Your task to perform on an android device: Open battery settings Image 0: 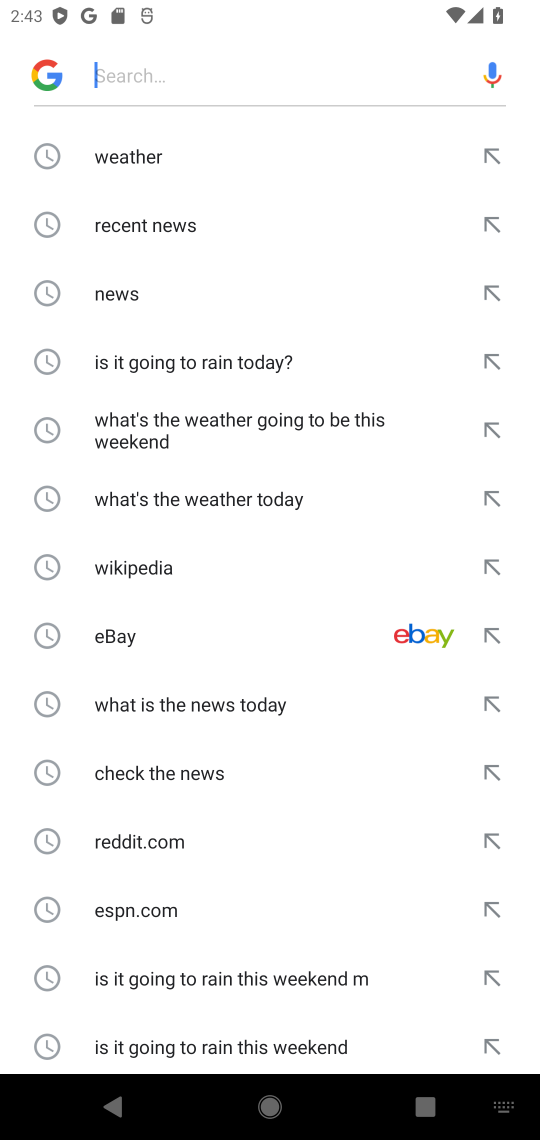
Step 0: press home button
Your task to perform on an android device: Open battery settings Image 1: 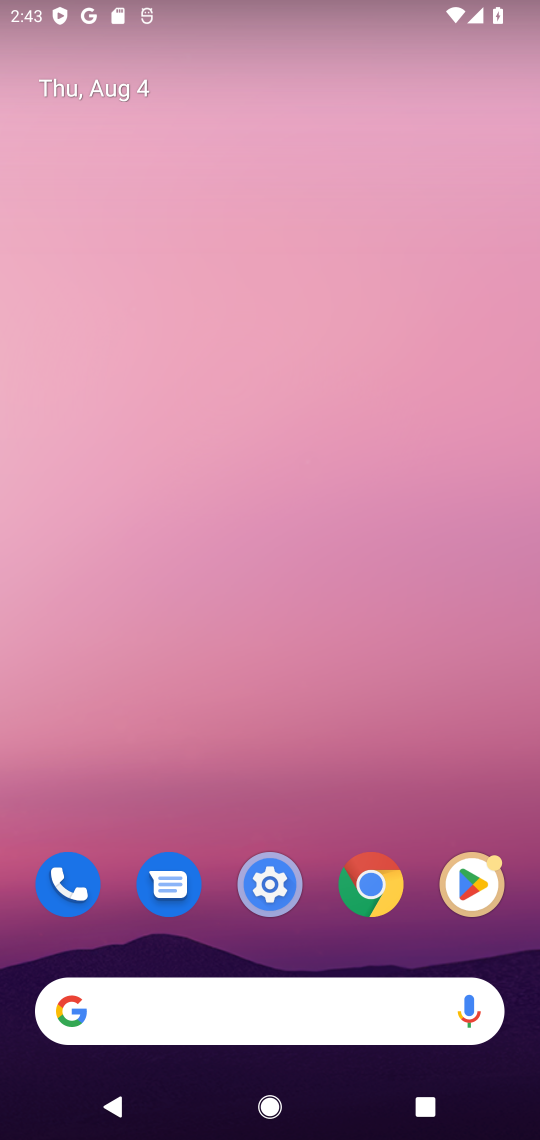
Step 1: drag from (217, 723) to (358, 77)
Your task to perform on an android device: Open battery settings Image 2: 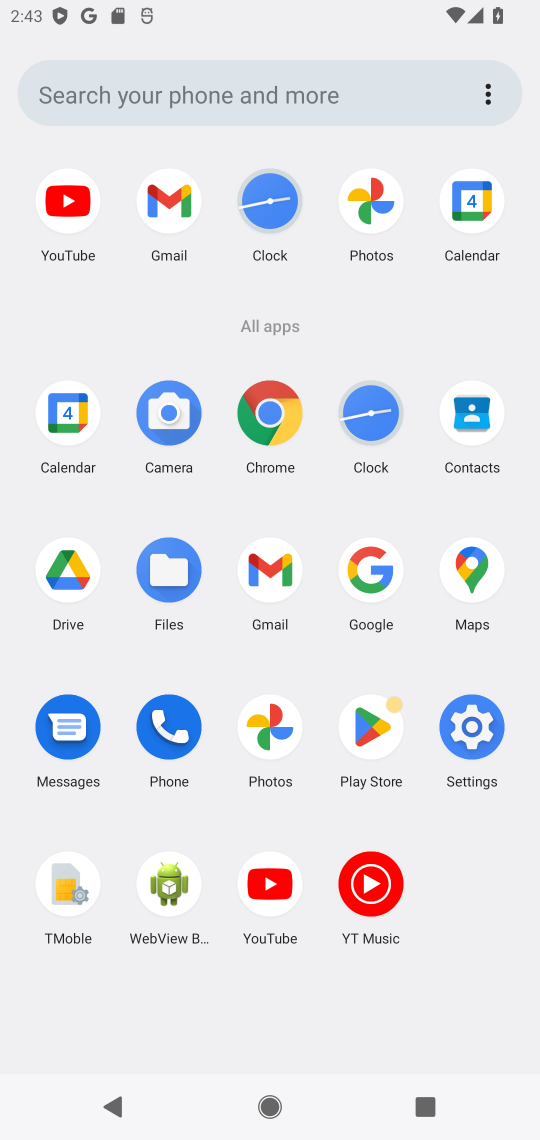
Step 2: click (457, 731)
Your task to perform on an android device: Open battery settings Image 3: 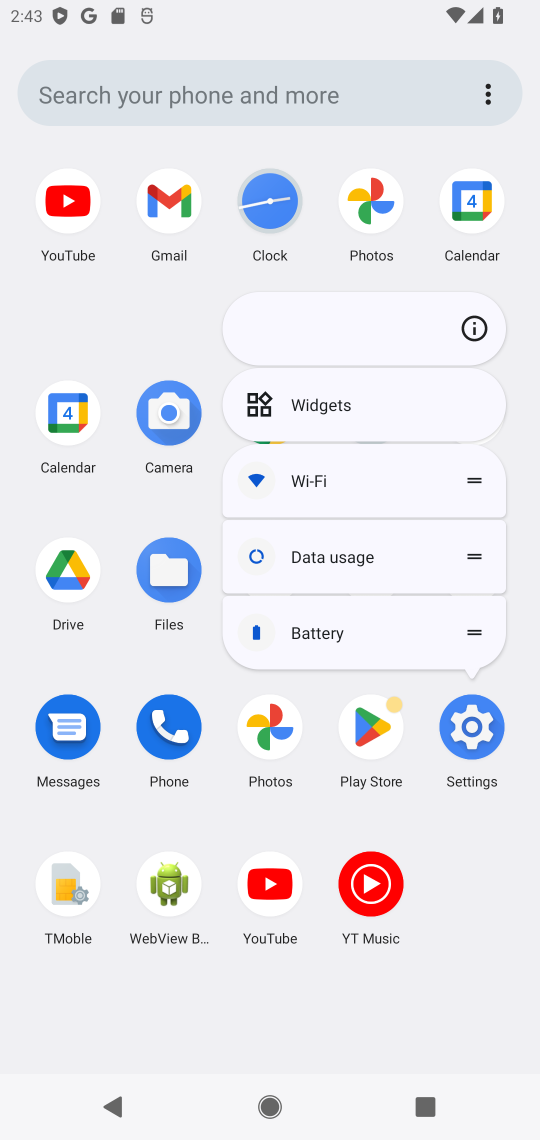
Step 3: click (475, 327)
Your task to perform on an android device: Open battery settings Image 4: 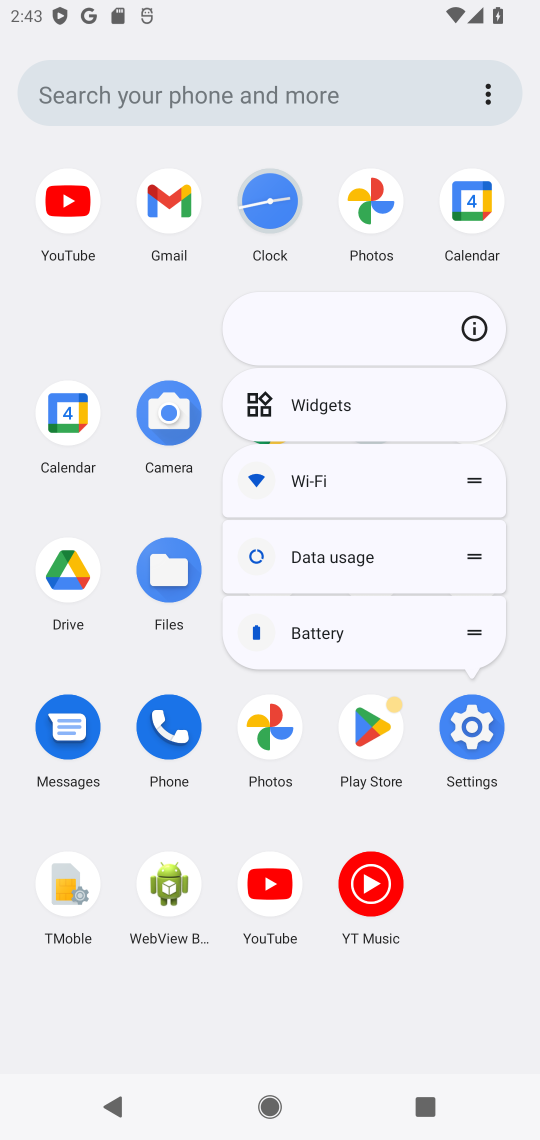
Step 4: click (470, 320)
Your task to perform on an android device: Open battery settings Image 5: 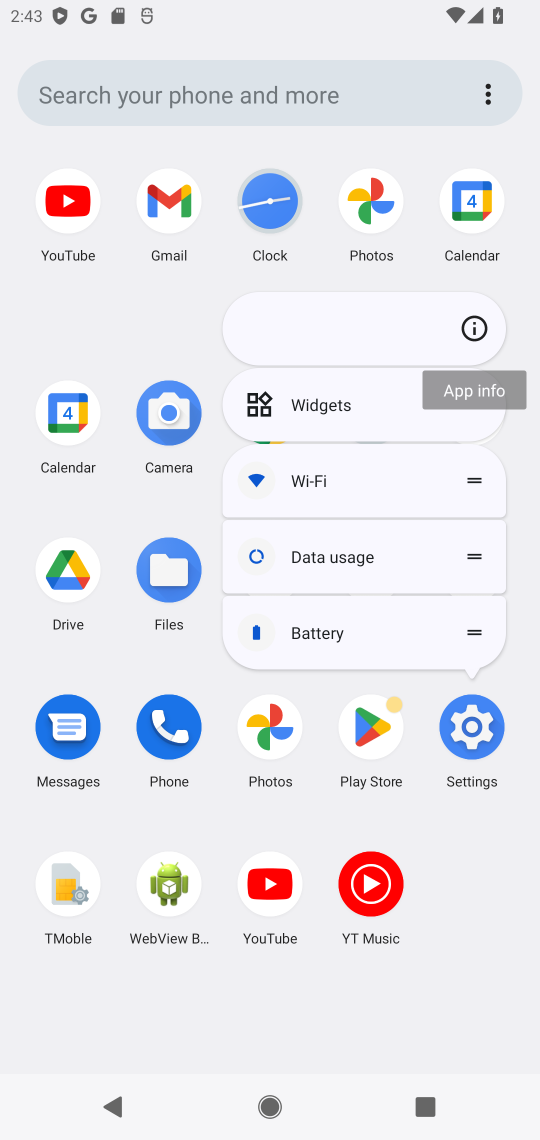
Step 5: click (473, 335)
Your task to perform on an android device: Open battery settings Image 6: 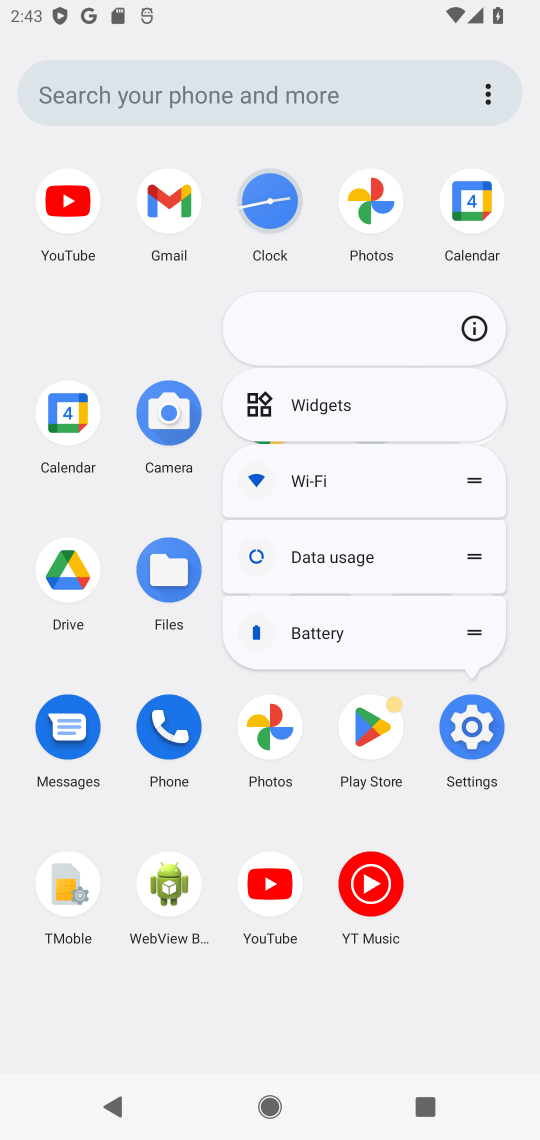
Step 6: click (472, 332)
Your task to perform on an android device: Open battery settings Image 7: 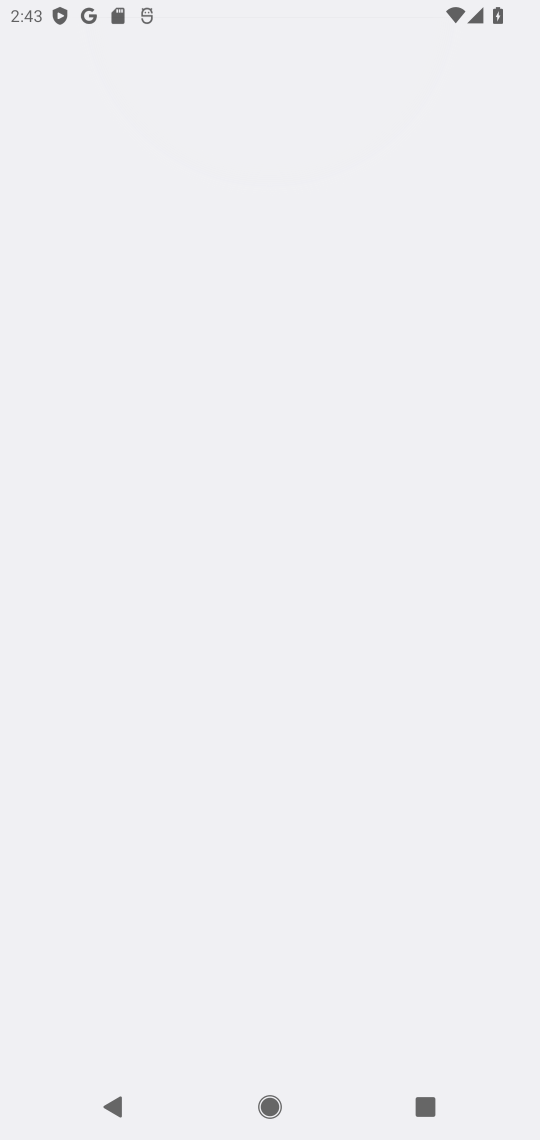
Step 7: click (464, 325)
Your task to perform on an android device: Open battery settings Image 8: 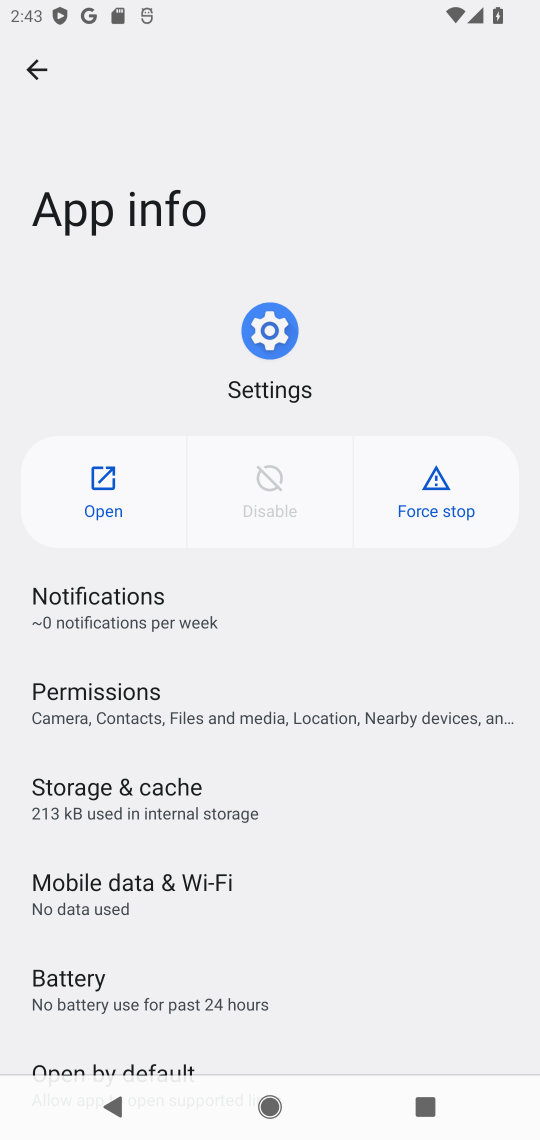
Step 8: click (83, 491)
Your task to perform on an android device: Open battery settings Image 9: 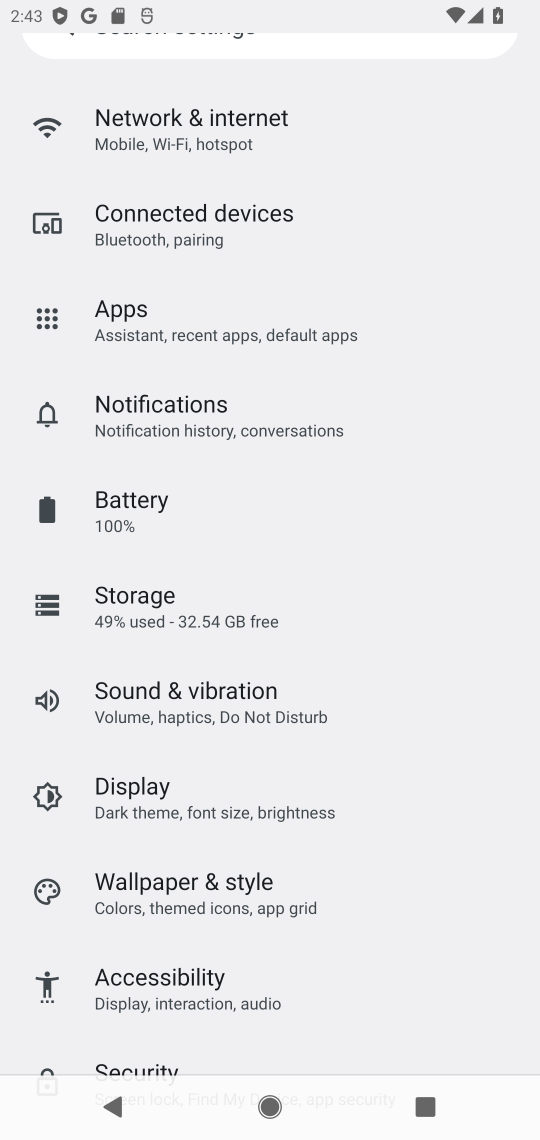
Step 9: click (181, 499)
Your task to perform on an android device: Open battery settings Image 10: 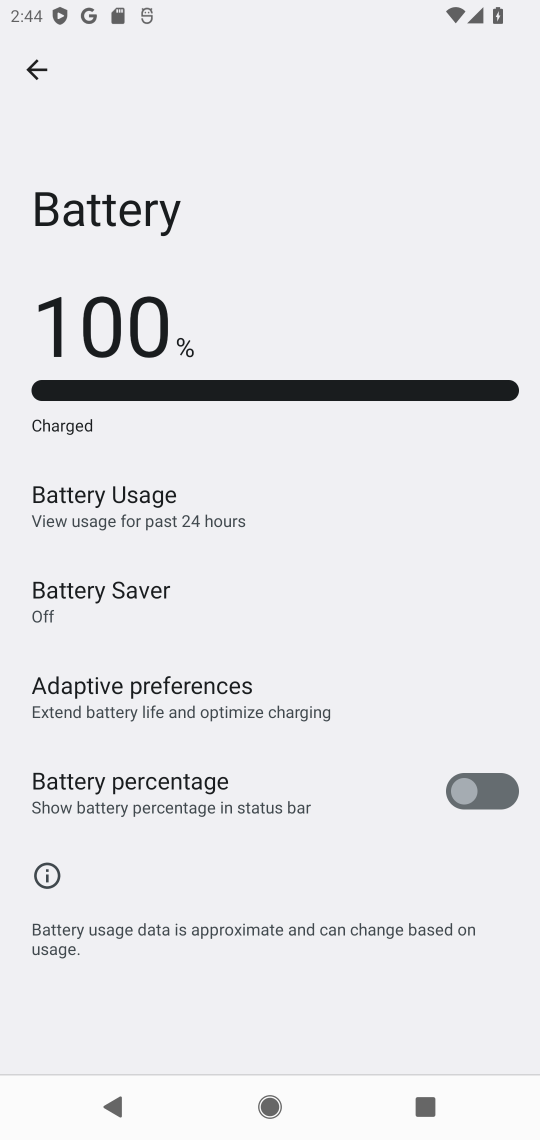
Step 10: task complete